Your task to perform on an android device: turn off translation in the chrome app Image 0: 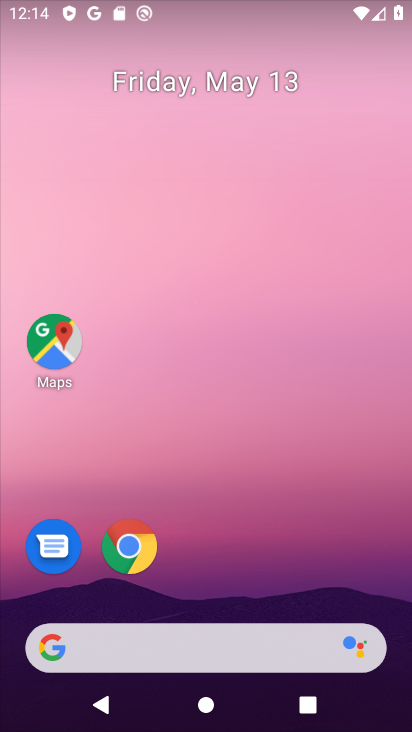
Step 0: drag from (331, 641) to (174, 58)
Your task to perform on an android device: turn off translation in the chrome app Image 1: 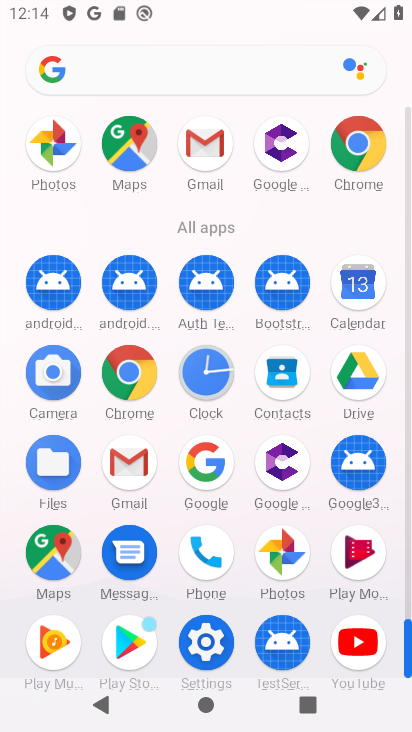
Step 1: click (354, 133)
Your task to perform on an android device: turn off translation in the chrome app Image 2: 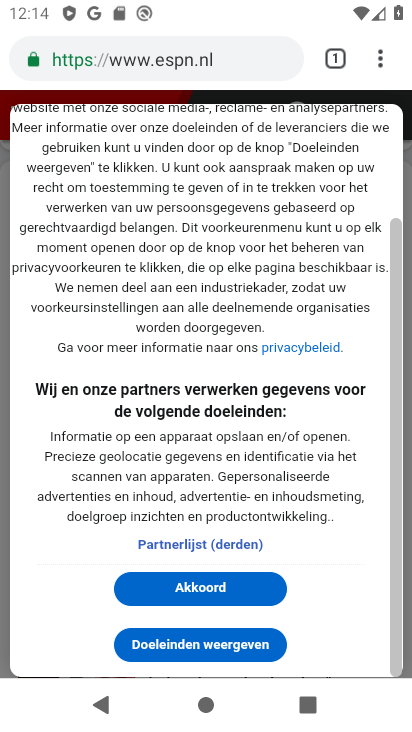
Step 2: press back button
Your task to perform on an android device: turn off translation in the chrome app Image 3: 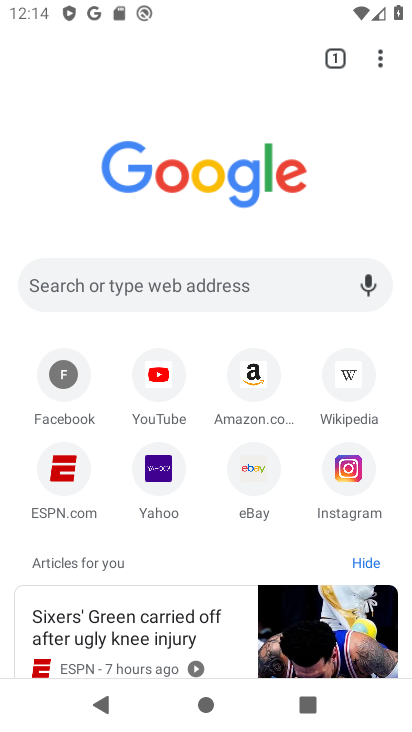
Step 3: click (379, 52)
Your task to perform on an android device: turn off translation in the chrome app Image 4: 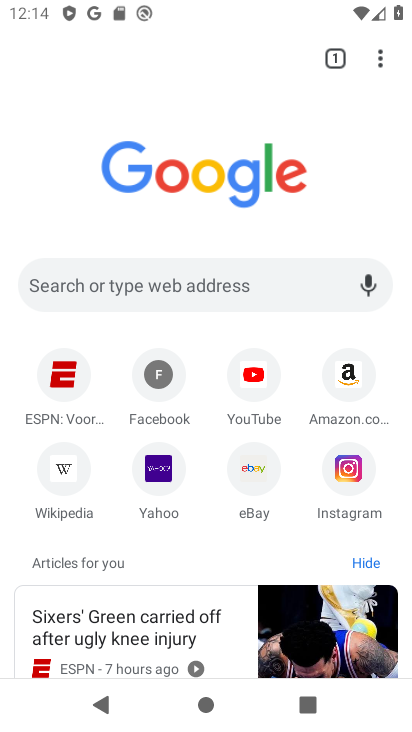
Step 4: click (379, 54)
Your task to perform on an android device: turn off translation in the chrome app Image 5: 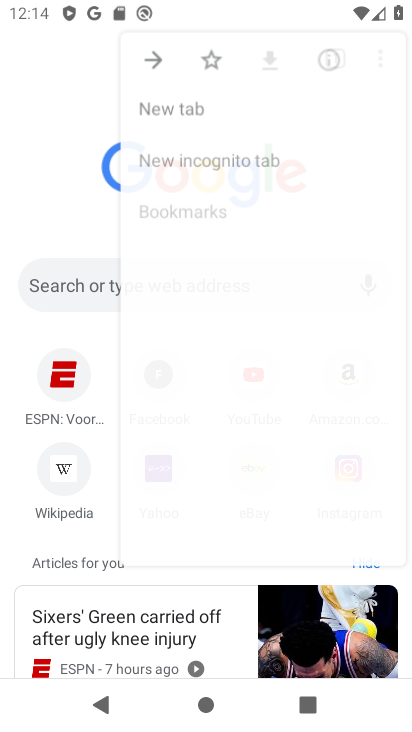
Step 5: click (378, 53)
Your task to perform on an android device: turn off translation in the chrome app Image 6: 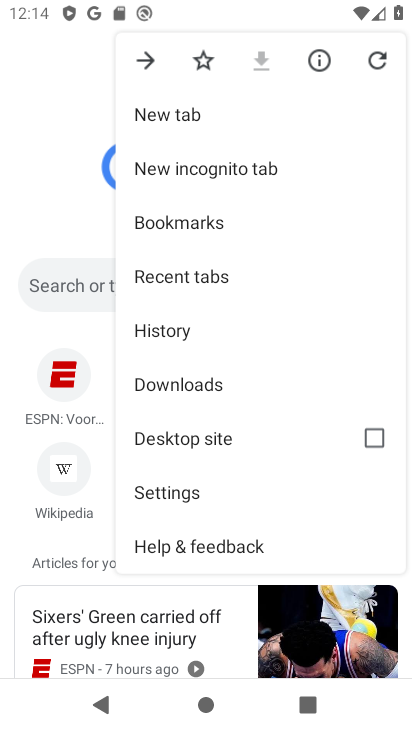
Step 6: click (210, 463)
Your task to perform on an android device: turn off translation in the chrome app Image 7: 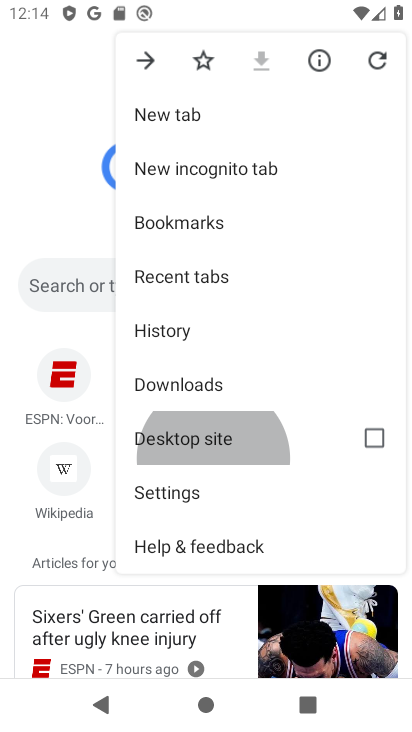
Step 7: click (198, 477)
Your task to perform on an android device: turn off translation in the chrome app Image 8: 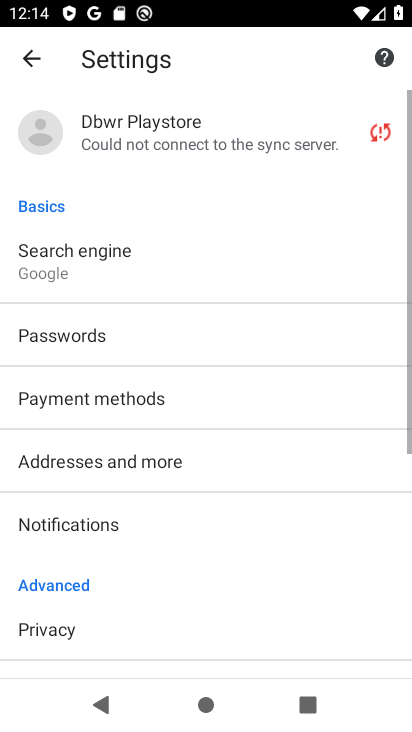
Step 8: drag from (145, 486) to (51, 128)
Your task to perform on an android device: turn off translation in the chrome app Image 9: 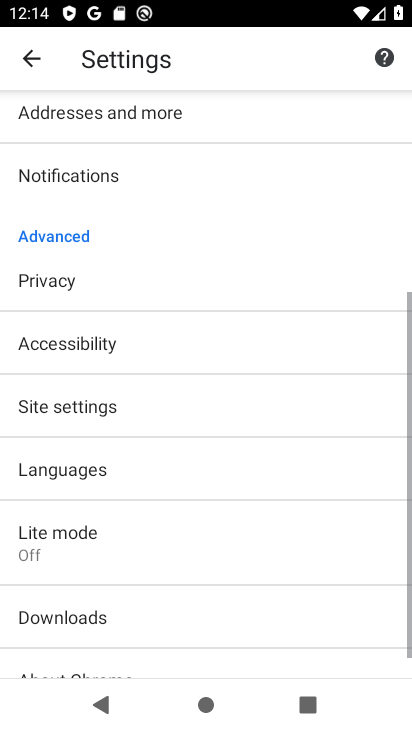
Step 9: drag from (203, 392) to (129, 118)
Your task to perform on an android device: turn off translation in the chrome app Image 10: 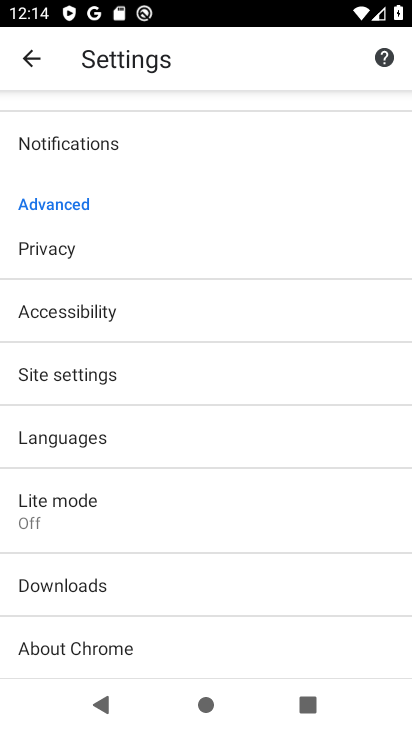
Step 10: click (55, 438)
Your task to perform on an android device: turn off translation in the chrome app Image 11: 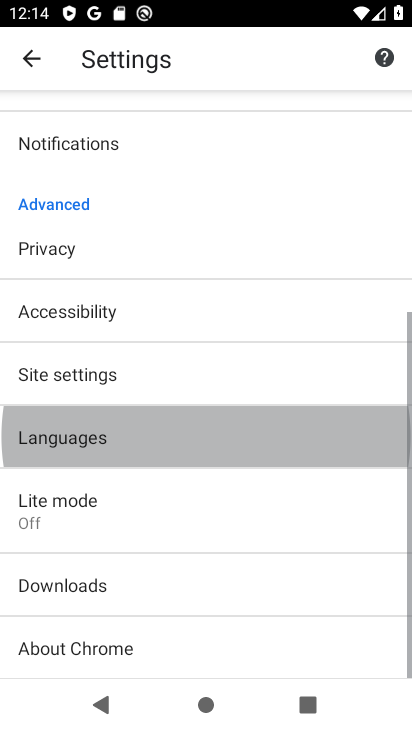
Step 11: click (52, 436)
Your task to perform on an android device: turn off translation in the chrome app Image 12: 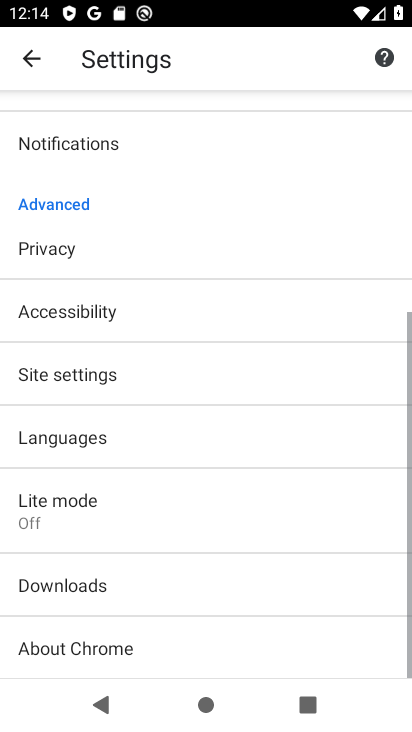
Step 12: click (53, 433)
Your task to perform on an android device: turn off translation in the chrome app Image 13: 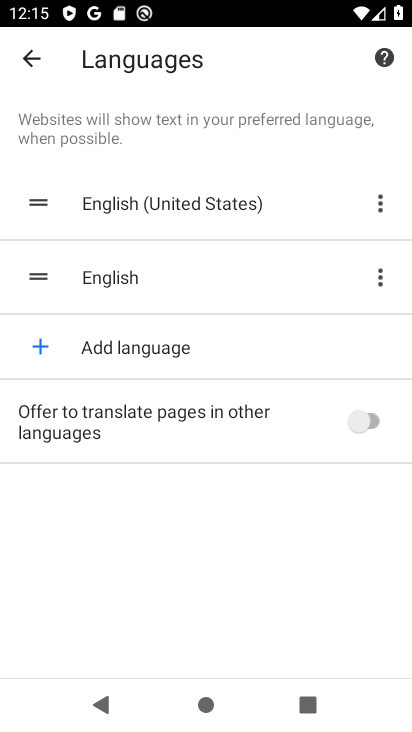
Step 13: click (363, 425)
Your task to perform on an android device: turn off translation in the chrome app Image 14: 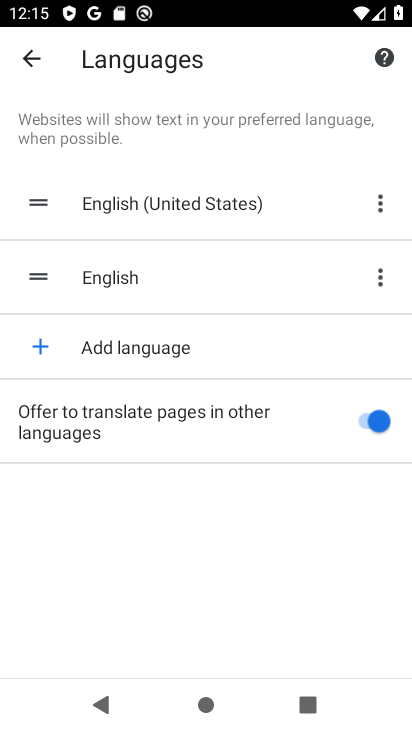
Step 14: click (367, 424)
Your task to perform on an android device: turn off translation in the chrome app Image 15: 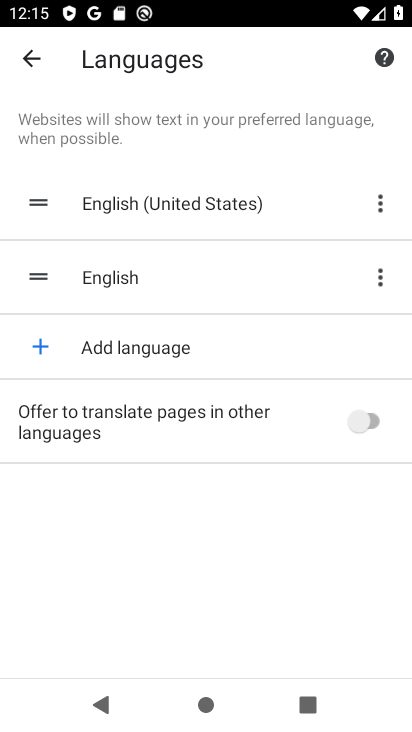
Step 15: task complete